Your task to perform on an android device: stop showing notifications on the lock screen Image 0: 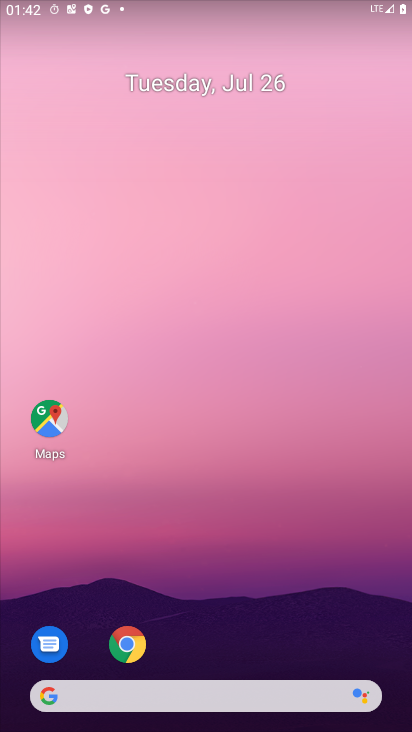
Step 0: drag from (223, 639) to (215, 53)
Your task to perform on an android device: stop showing notifications on the lock screen Image 1: 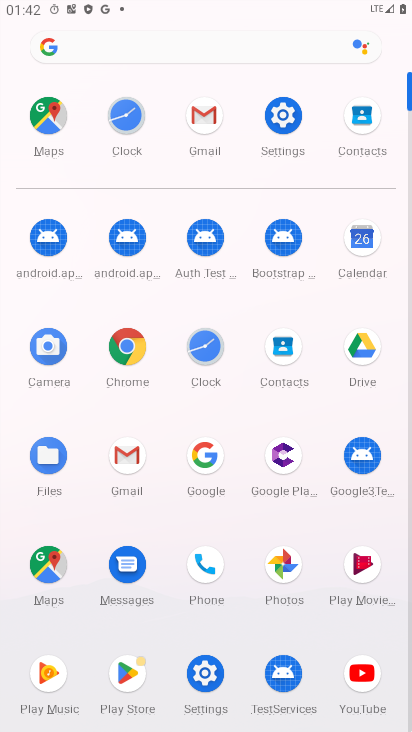
Step 1: click (288, 120)
Your task to perform on an android device: stop showing notifications on the lock screen Image 2: 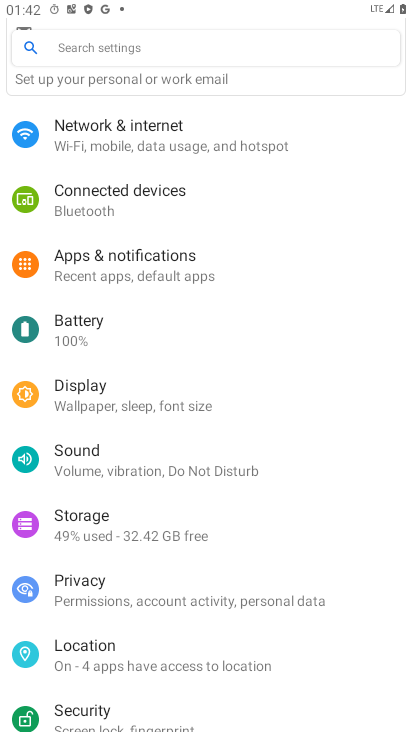
Step 2: click (107, 266)
Your task to perform on an android device: stop showing notifications on the lock screen Image 3: 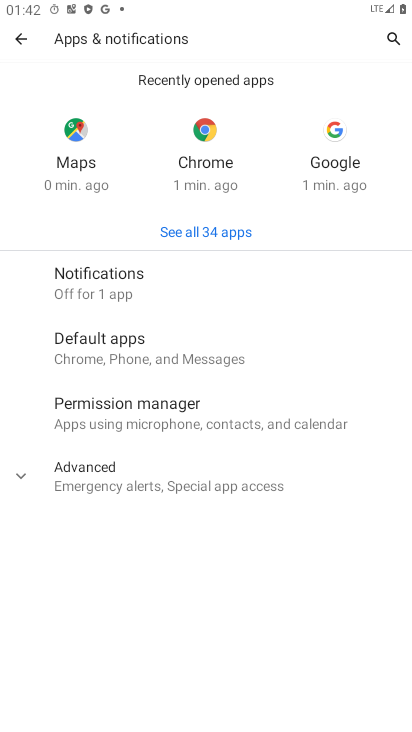
Step 3: click (89, 293)
Your task to perform on an android device: stop showing notifications on the lock screen Image 4: 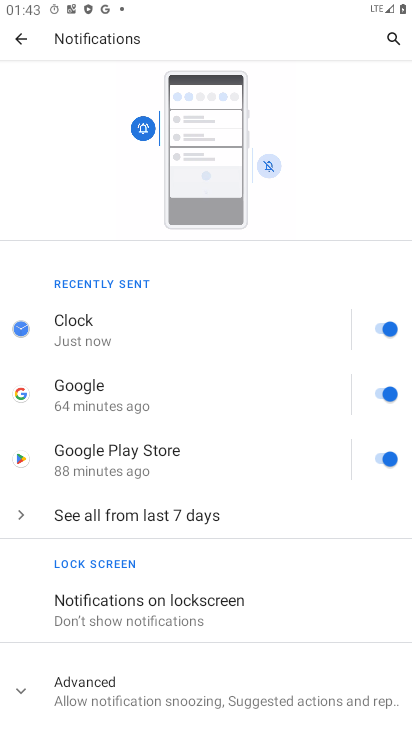
Step 4: drag from (322, 585) to (323, 388)
Your task to perform on an android device: stop showing notifications on the lock screen Image 5: 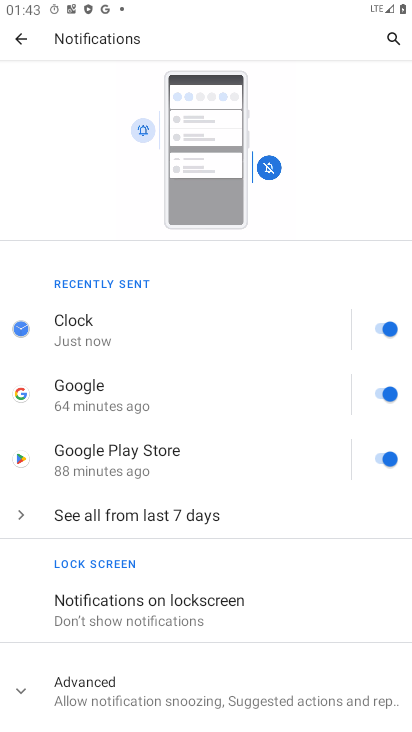
Step 5: click (89, 602)
Your task to perform on an android device: stop showing notifications on the lock screen Image 6: 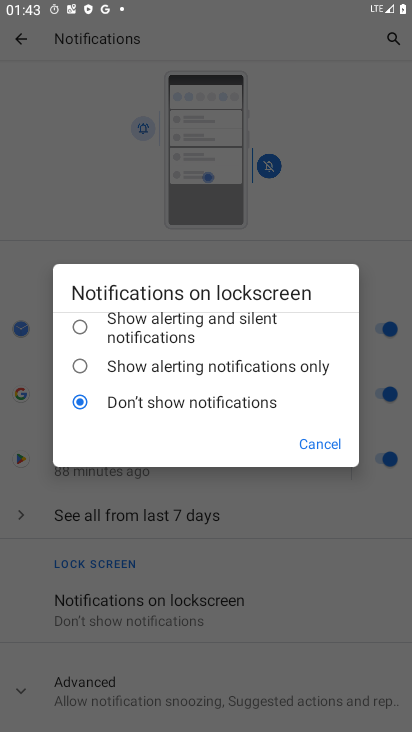
Step 6: task complete